Your task to perform on an android device: Open Yahoo.com Image 0: 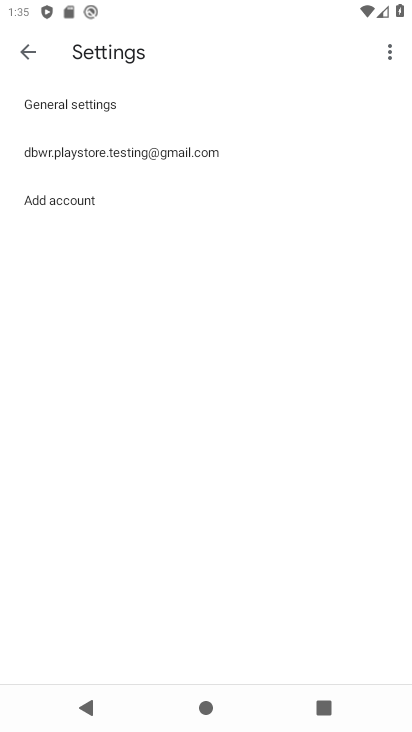
Step 0: press home button
Your task to perform on an android device: Open Yahoo.com Image 1: 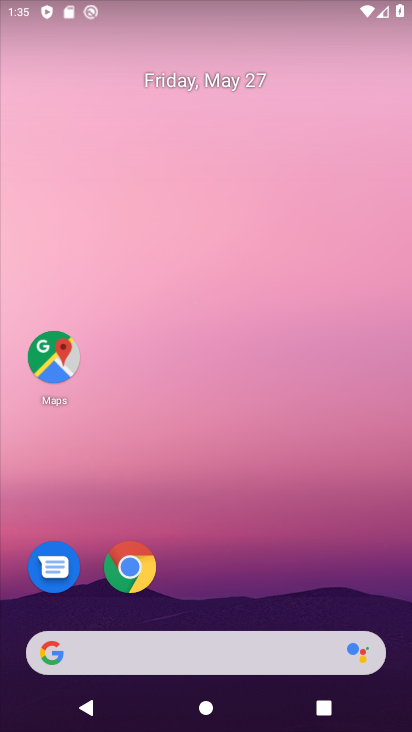
Step 1: click (144, 567)
Your task to perform on an android device: Open Yahoo.com Image 2: 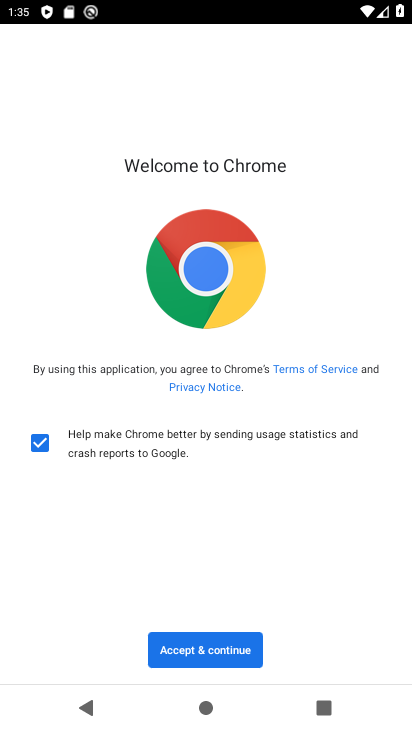
Step 2: click (216, 646)
Your task to perform on an android device: Open Yahoo.com Image 3: 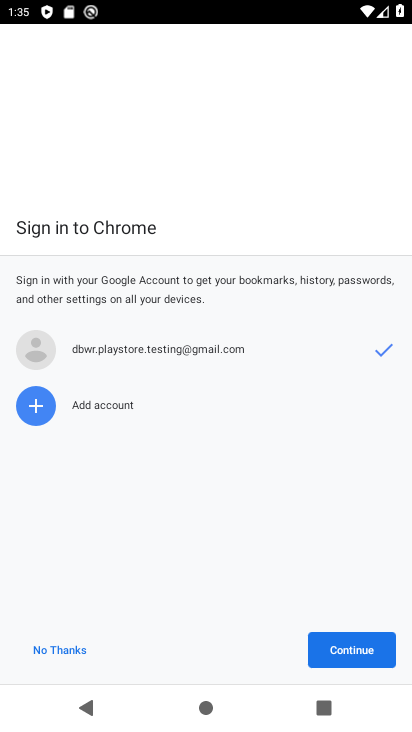
Step 3: click (321, 648)
Your task to perform on an android device: Open Yahoo.com Image 4: 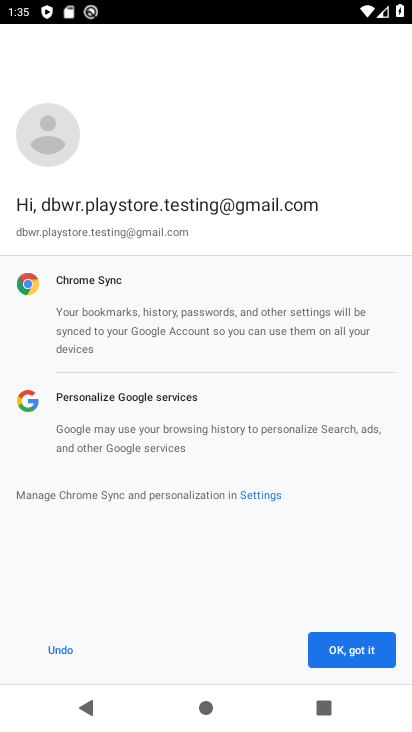
Step 4: click (321, 648)
Your task to perform on an android device: Open Yahoo.com Image 5: 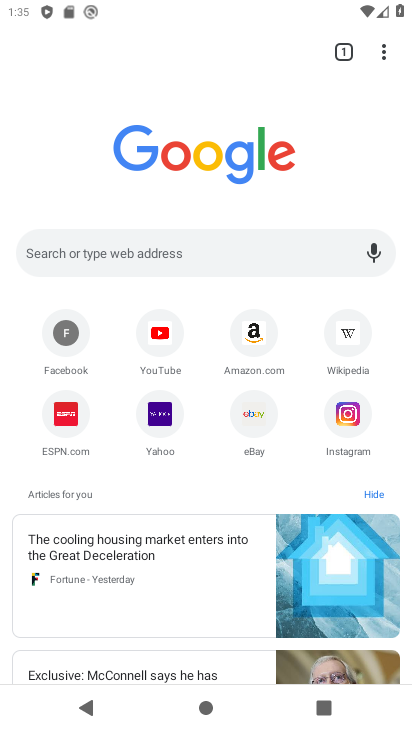
Step 5: click (156, 428)
Your task to perform on an android device: Open Yahoo.com Image 6: 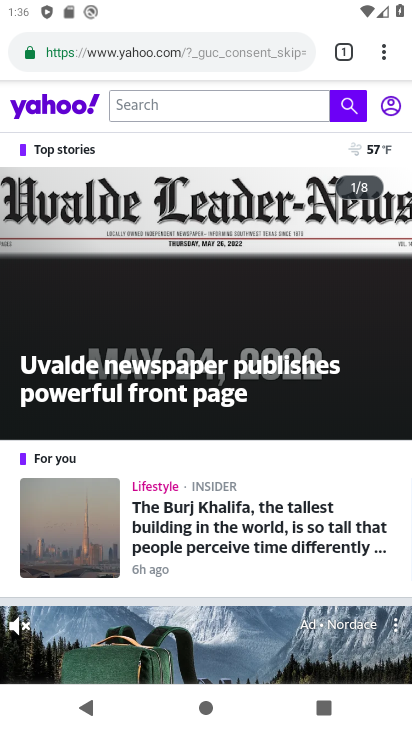
Step 6: task complete